Your task to perform on an android device: Clear all items from cart on walmart. Add "razer deathadder" to the cart on walmart, then select checkout. Image 0: 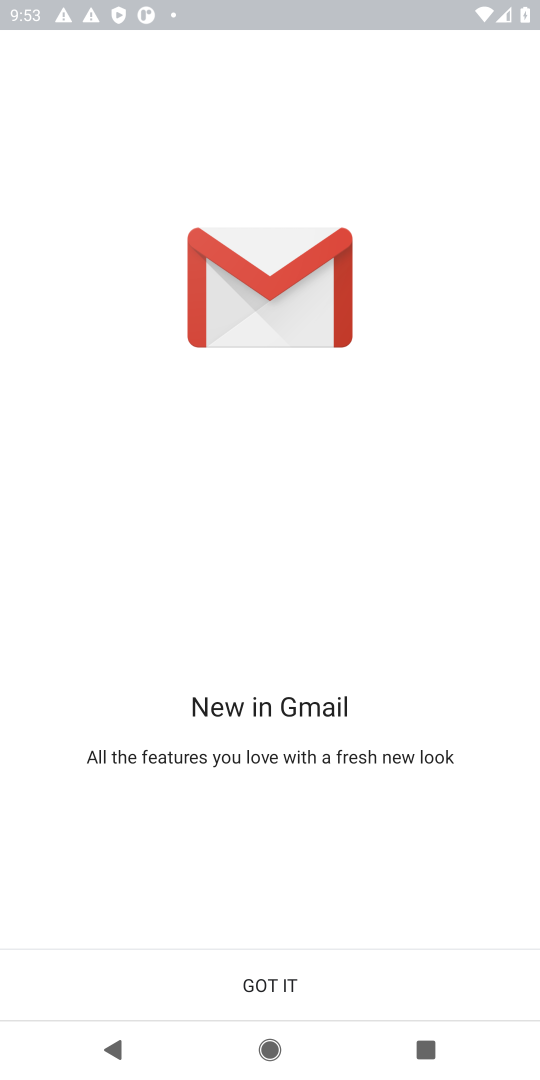
Step 0: press home button
Your task to perform on an android device: Clear all items from cart on walmart. Add "razer deathadder" to the cart on walmart, then select checkout. Image 1: 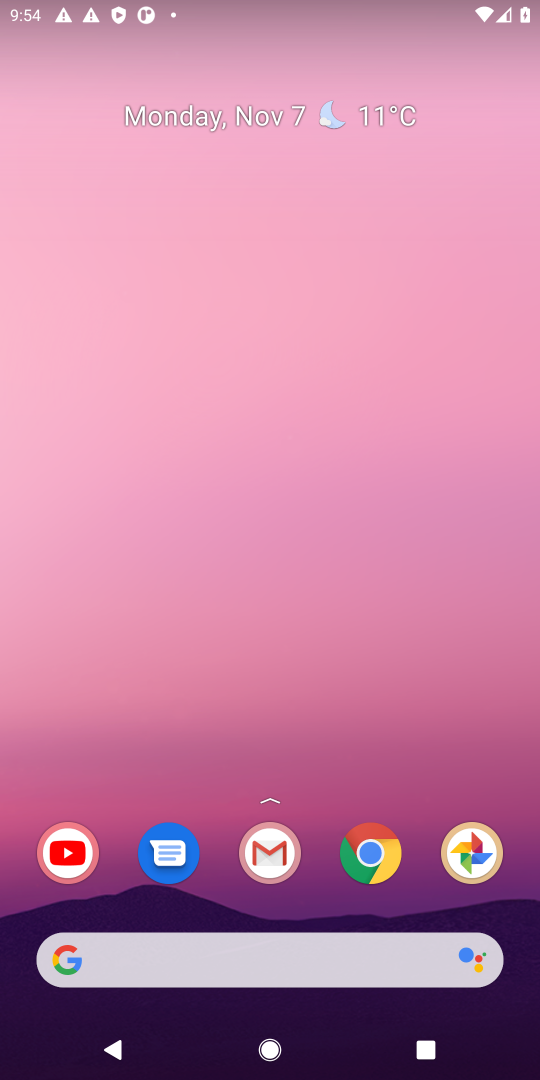
Step 1: click (148, 949)
Your task to perform on an android device: Clear all items from cart on walmart. Add "razer deathadder" to the cart on walmart, then select checkout. Image 2: 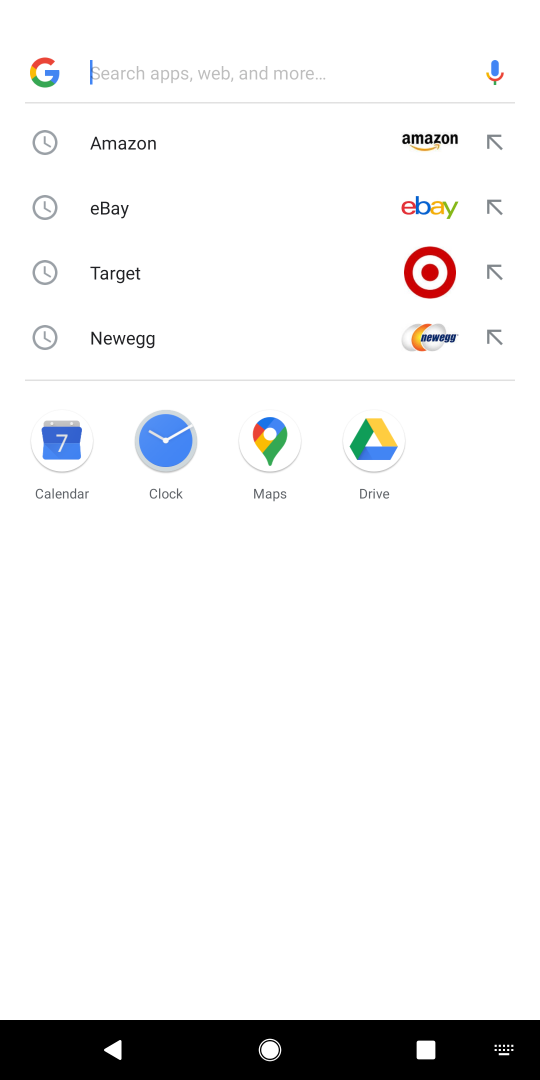
Step 2: type "walmart"
Your task to perform on an android device: Clear all items from cart on walmart. Add "razer deathadder" to the cart on walmart, then select checkout. Image 3: 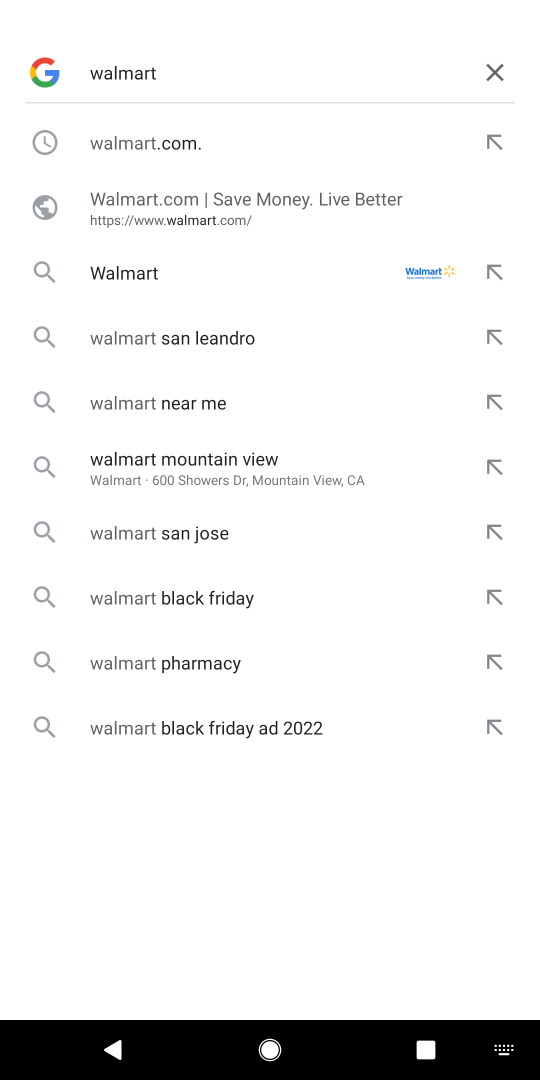
Step 3: click (238, 215)
Your task to perform on an android device: Clear all items from cart on walmart. Add "razer deathadder" to the cart on walmart, then select checkout. Image 4: 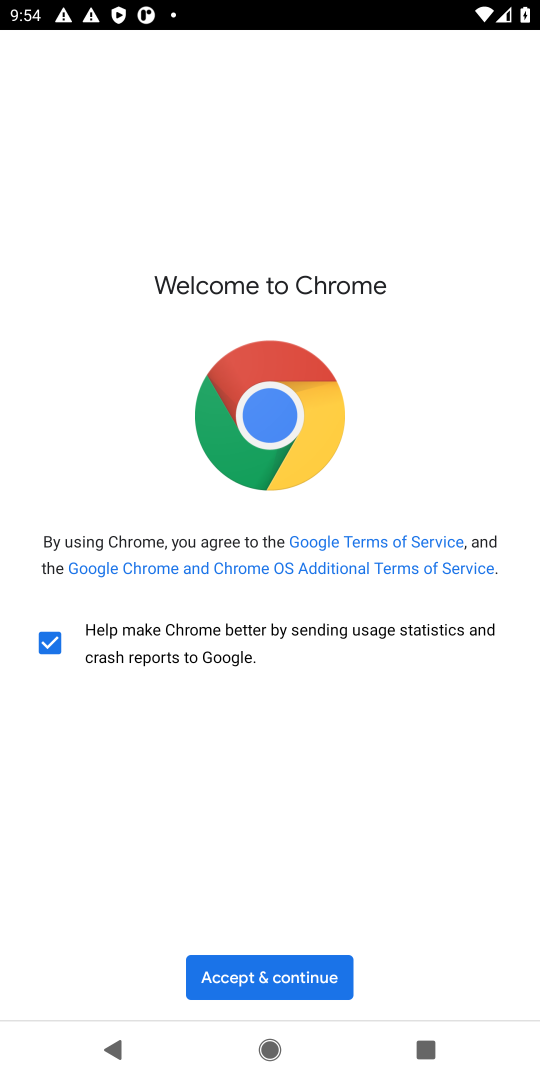
Step 4: click (221, 956)
Your task to perform on an android device: Clear all items from cart on walmart. Add "razer deathadder" to the cart on walmart, then select checkout. Image 5: 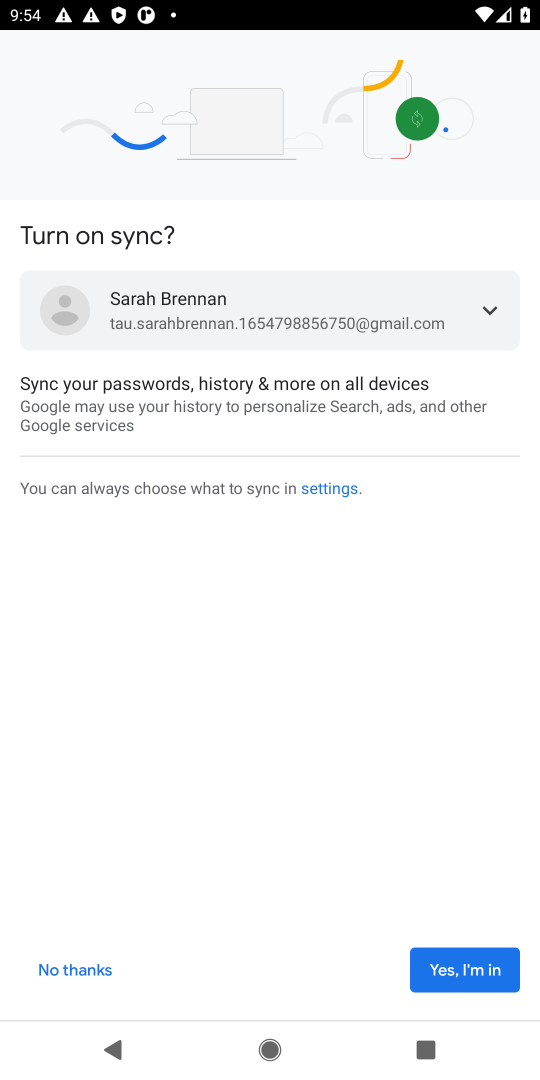
Step 5: click (432, 978)
Your task to perform on an android device: Clear all items from cart on walmart. Add "razer deathadder" to the cart on walmart, then select checkout. Image 6: 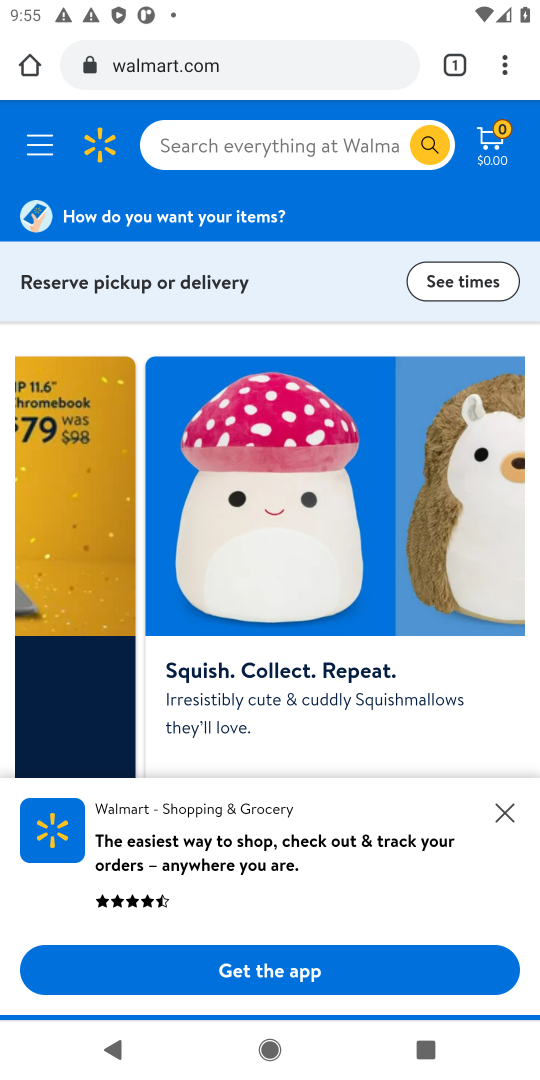
Step 6: click (343, 160)
Your task to perform on an android device: Clear all items from cart on walmart. Add "razer deathadder" to the cart on walmart, then select checkout. Image 7: 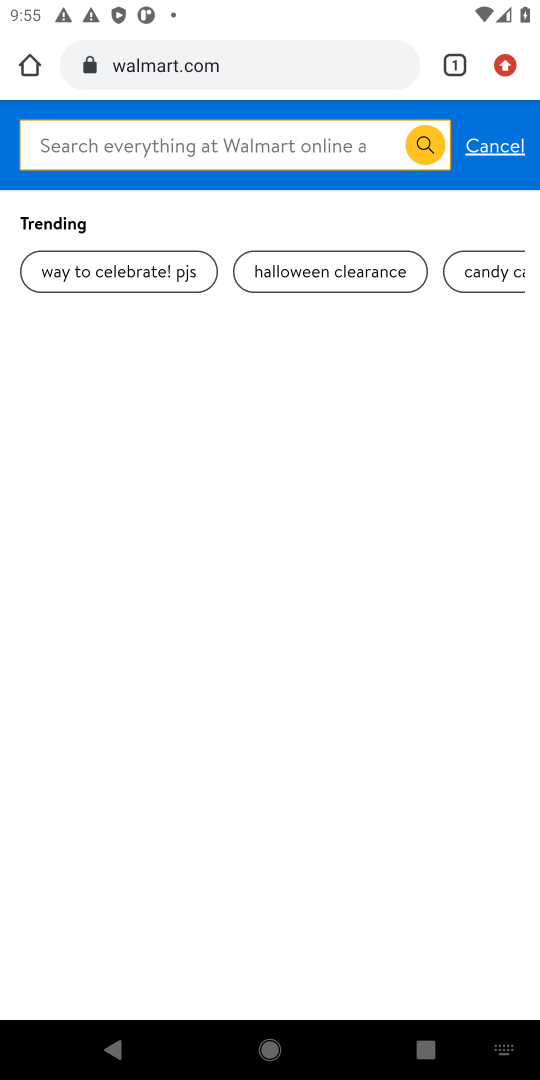
Step 7: task complete